Your task to perform on an android device: Is it going to rain this weekend? Image 0: 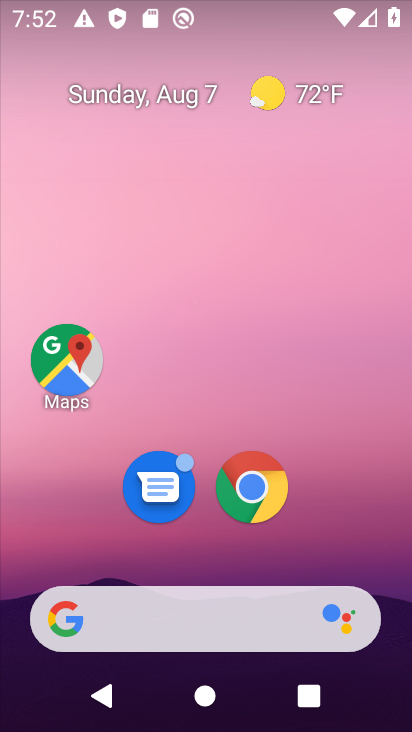
Step 0: drag from (381, 661) to (361, 17)
Your task to perform on an android device: Is it going to rain this weekend? Image 1: 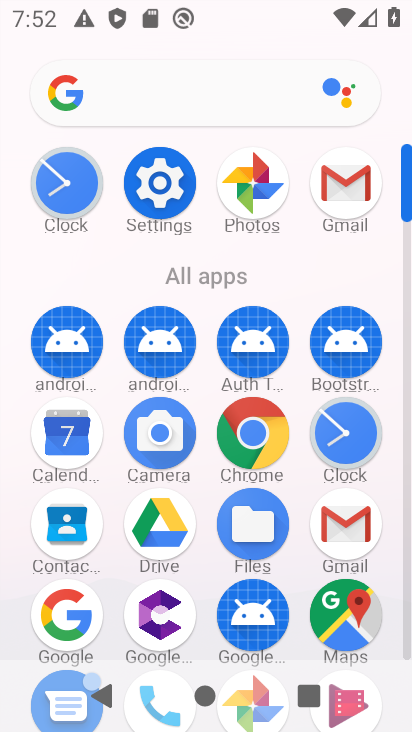
Step 1: click (63, 613)
Your task to perform on an android device: Is it going to rain this weekend? Image 2: 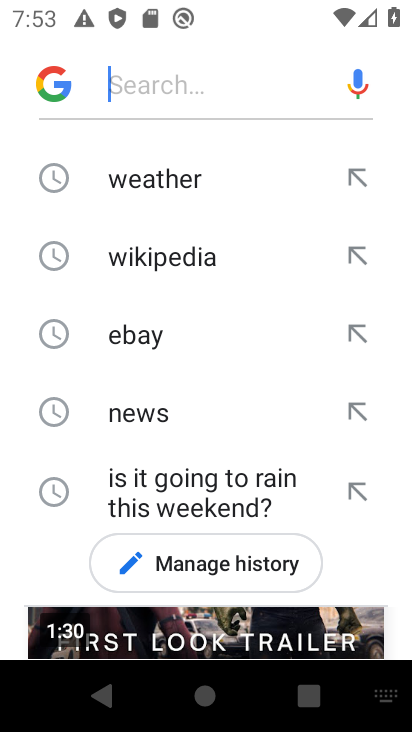
Step 2: press back button
Your task to perform on an android device: Is it going to rain this weekend? Image 3: 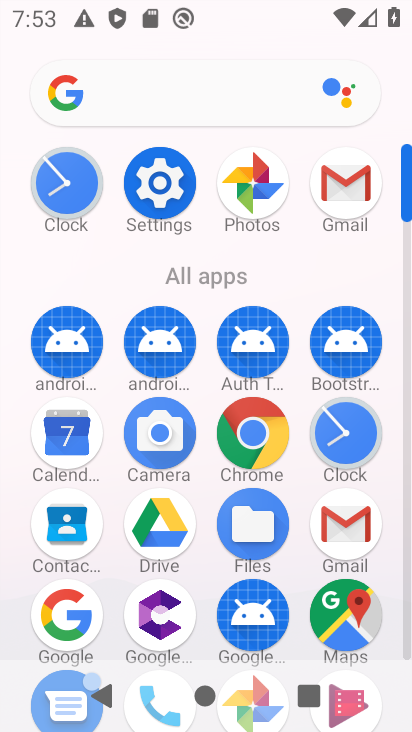
Step 3: click (68, 608)
Your task to perform on an android device: Is it going to rain this weekend? Image 4: 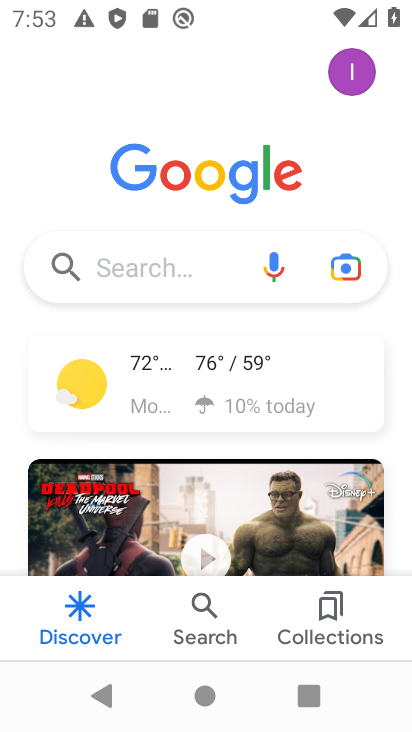
Step 4: drag from (308, 525) to (300, 311)
Your task to perform on an android device: Is it going to rain this weekend? Image 5: 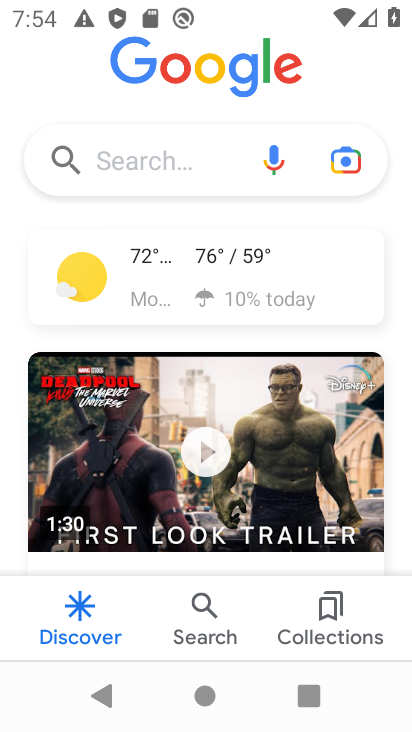
Step 5: click (274, 292)
Your task to perform on an android device: Is it going to rain this weekend? Image 6: 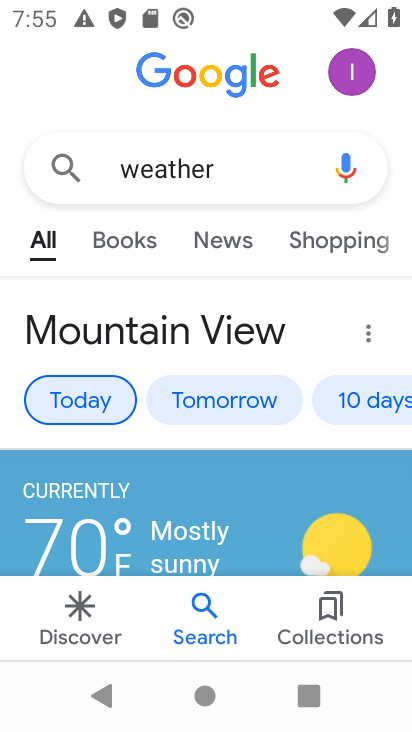
Step 6: click (381, 407)
Your task to perform on an android device: Is it going to rain this weekend? Image 7: 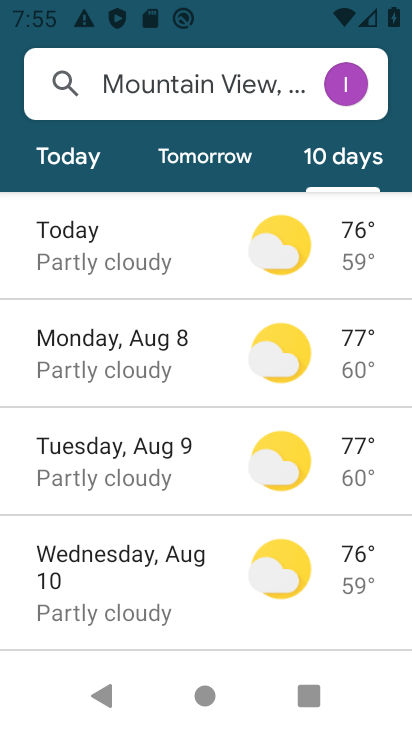
Step 7: task complete